Your task to perform on an android device: check android version Image 0: 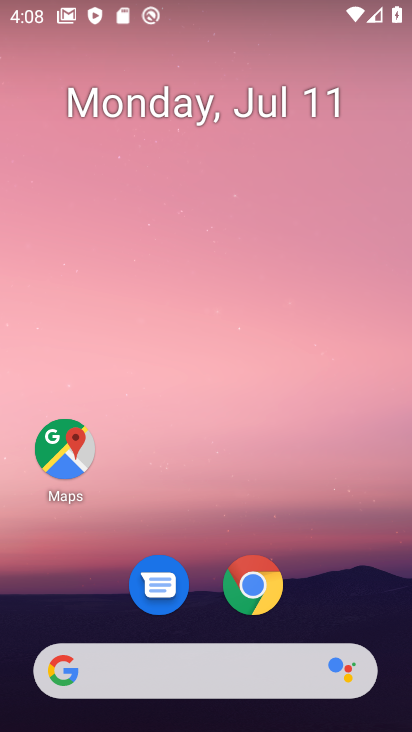
Step 0: drag from (361, 543) to (353, 0)
Your task to perform on an android device: check android version Image 1: 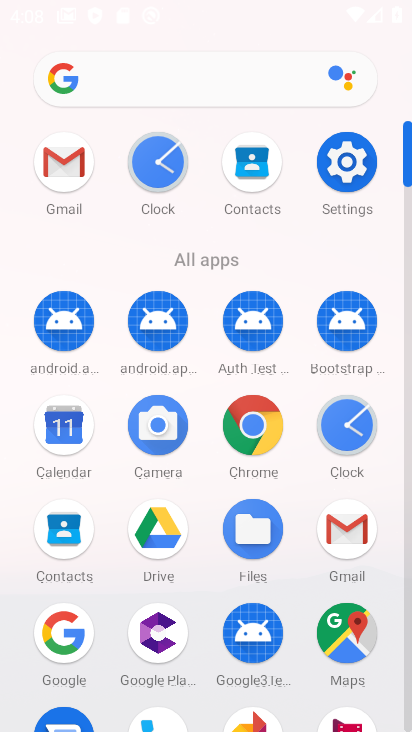
Step 1: click (356, 166)
Your task to perform on an android device: check android version Image 2: 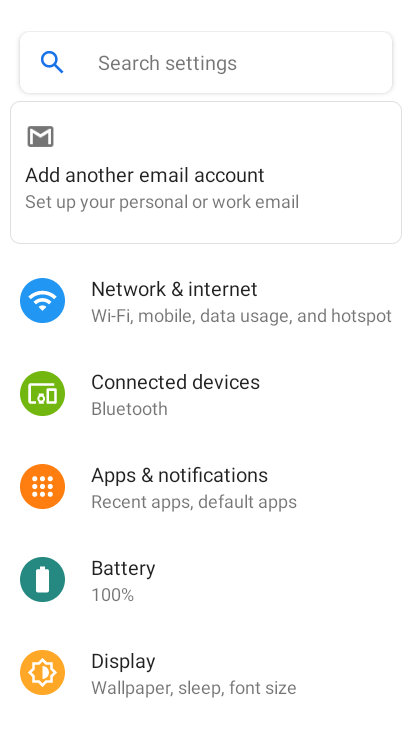
Step 2: drag from (228, 658) to (246, 22)
Your task to perform on an android device: check android version Image 3: 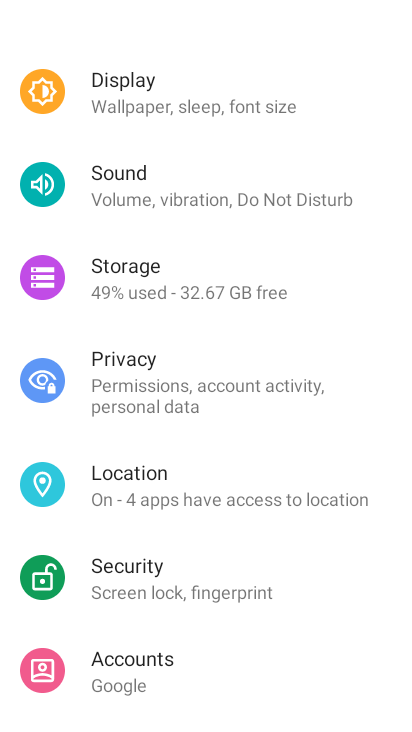
Step 3: drag from (247, 634) to (293, 188)
Your task to perform on an android device: check android version Image 4: 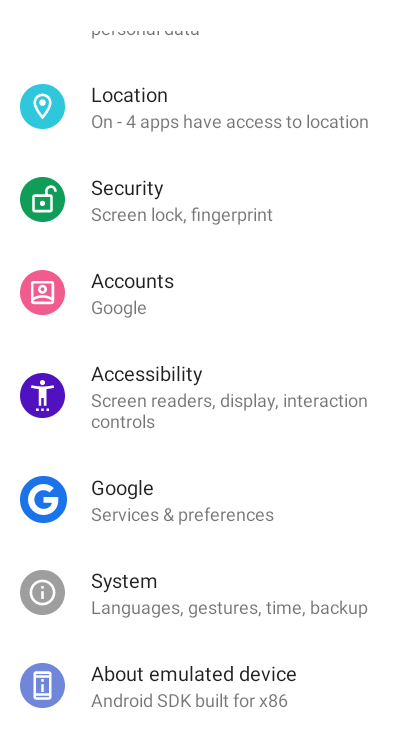
Step 4: click (231, 683)
Your task to perform on an android device: check android version Image 5: 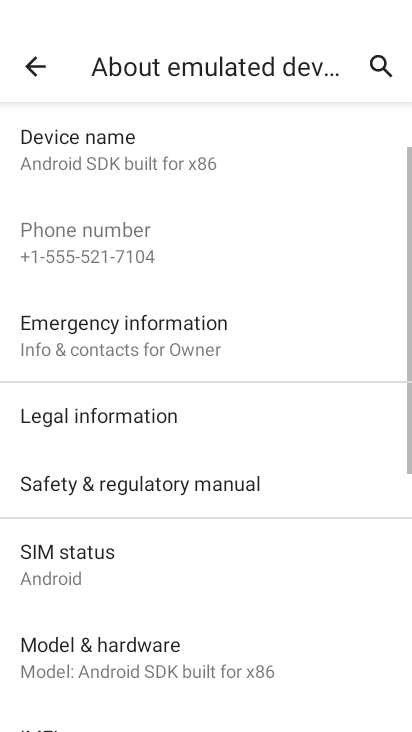
Step 5: drag from (232, 581) to (289, 187)
Your task to perform on an android device: check android version Image 6: 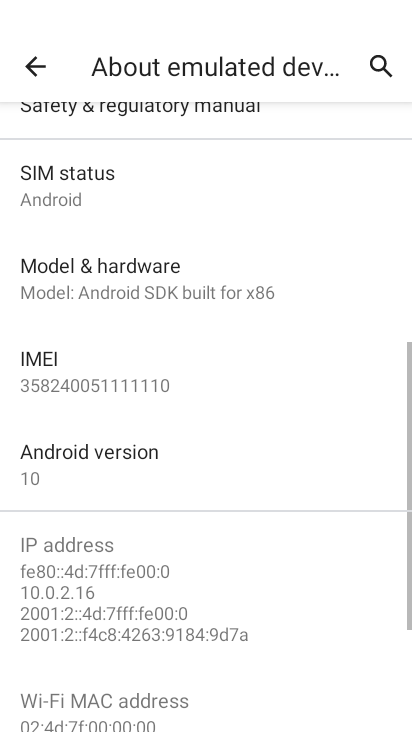
Step 6: click (111, 481)
Your task to perform on an android device: check android version Image 7: 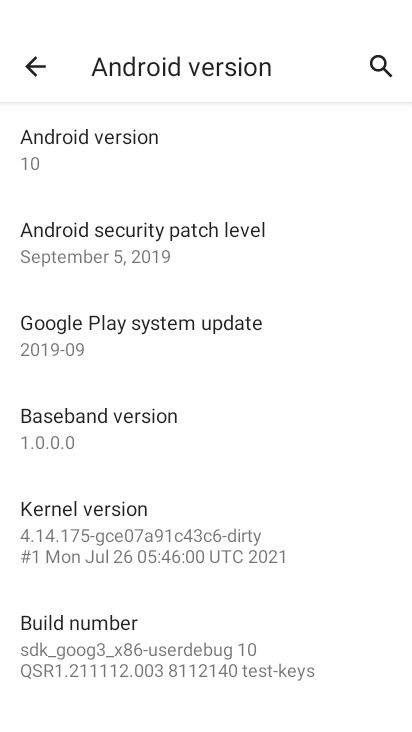
Step 7: task complete